Your task to perform on an android device: uninstall "DuckDuckGo Privacy Browser" Image 0: 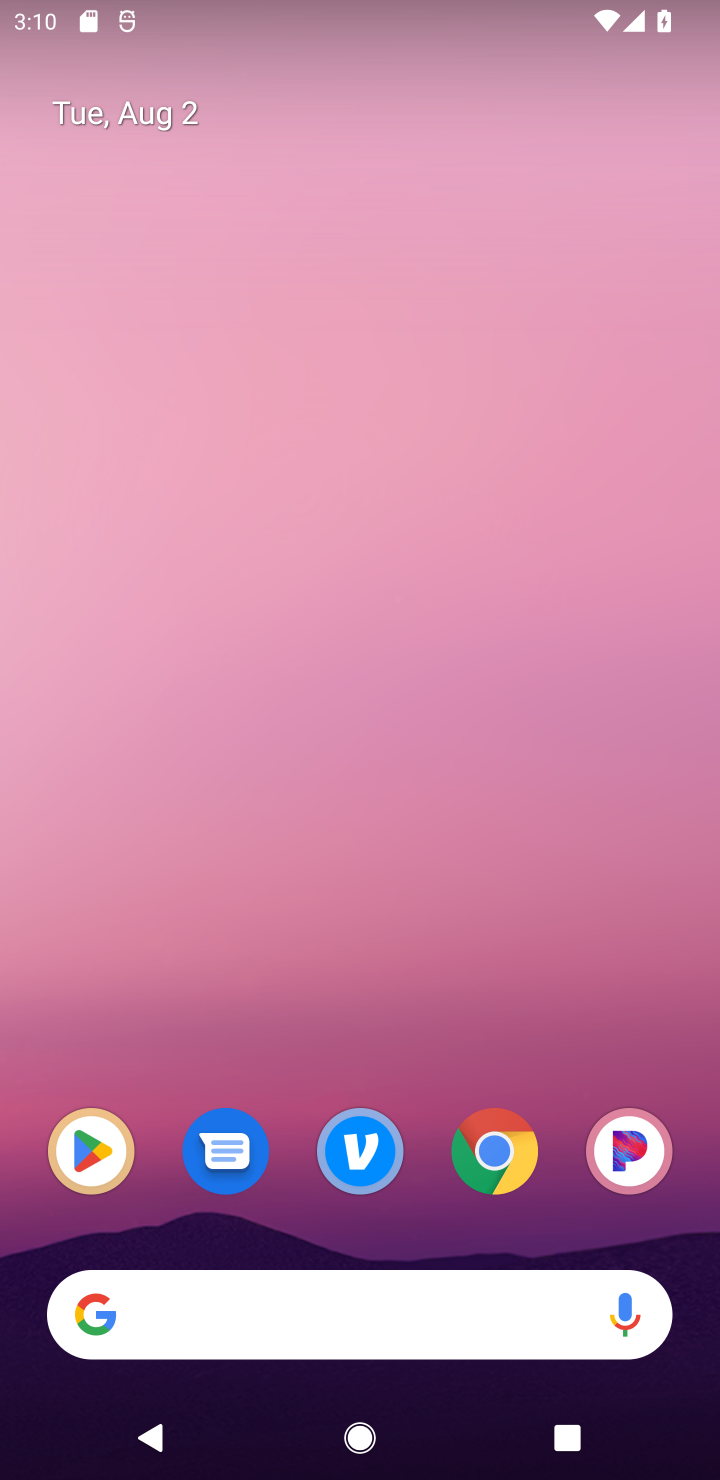
Step 0: drag from (416, 988) to (477, 449)
Your task to perform on an android device: uninstall "DuckDuckGo Privacy Browser" Image 1: 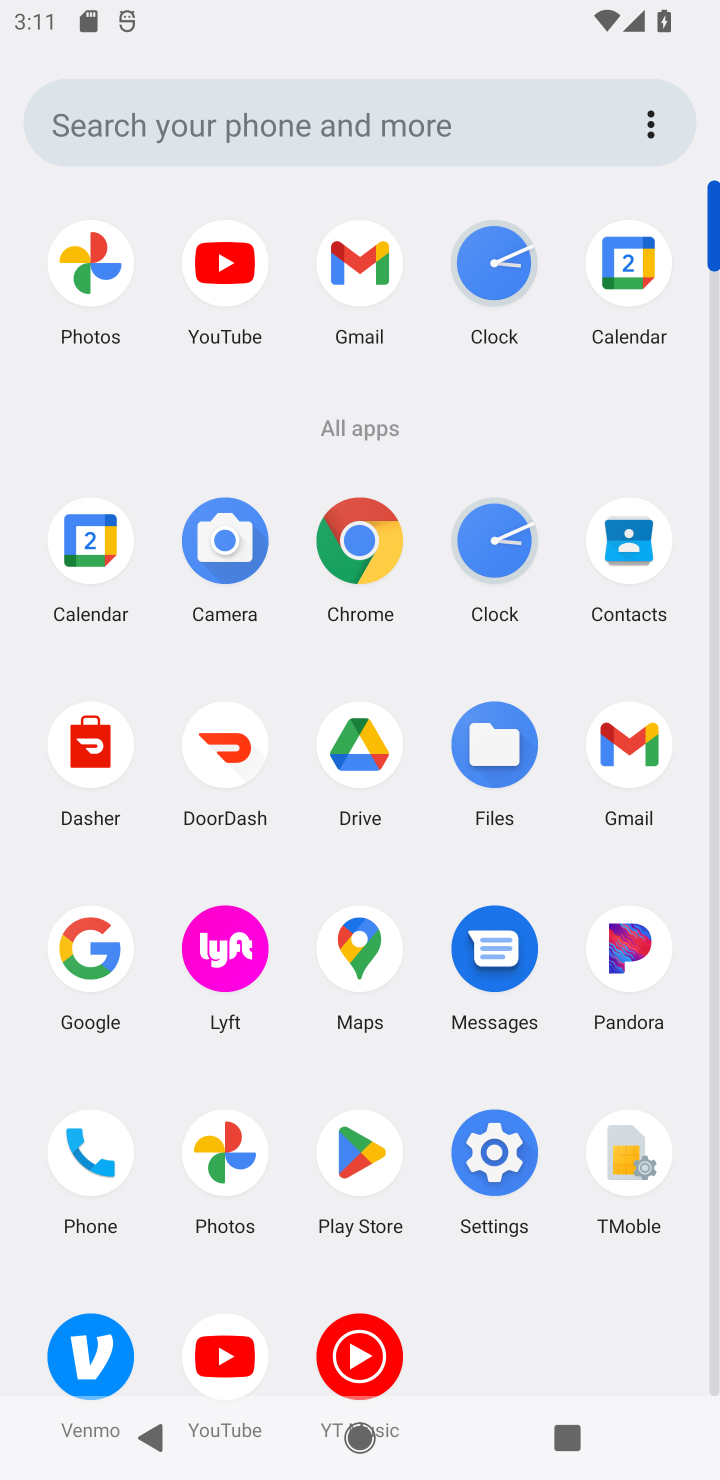
Step 1: click (390, 1163)
Your task to perform on an android device: uninstall "DuckDuckGo Privacy Browser" Image 2: 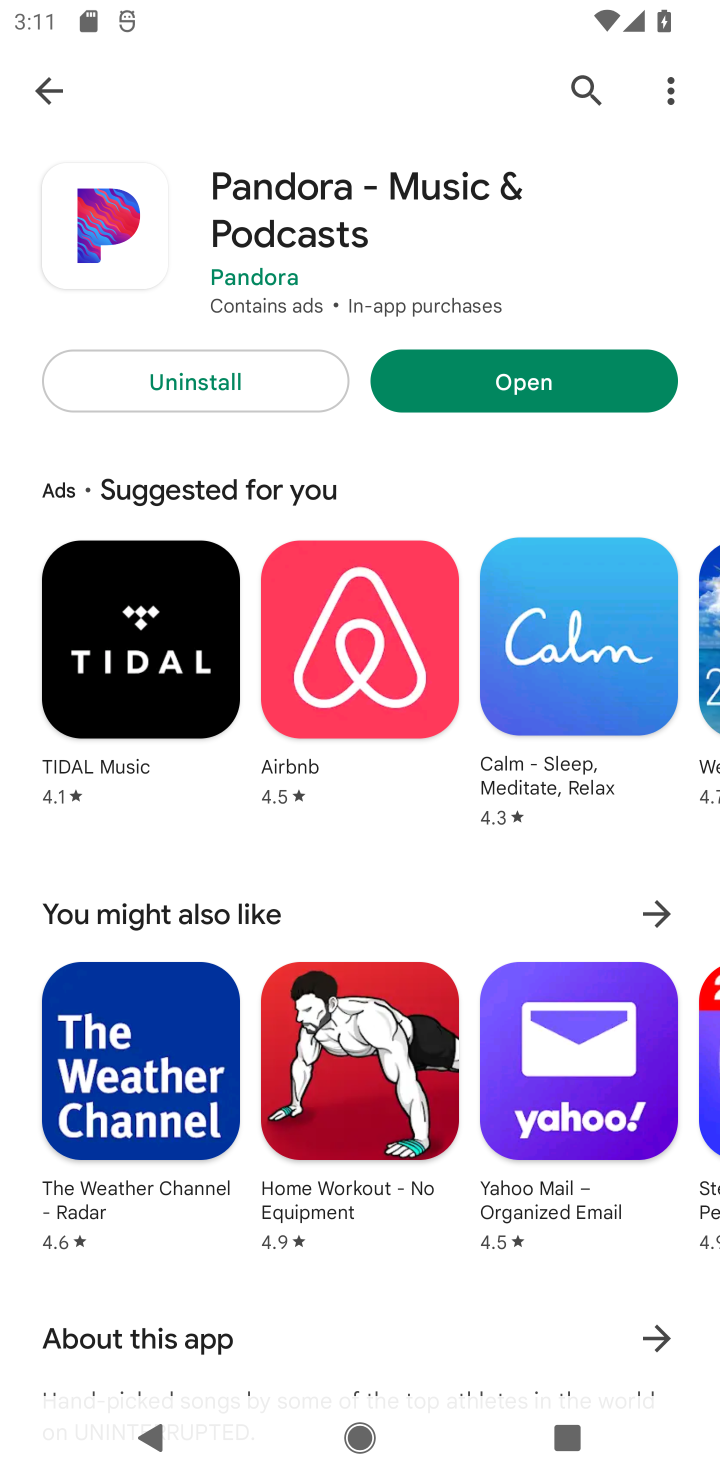
Step 2: click (50, 99)
Your task to perform on an android device: uninstall "DuckDuckGo Privacy Browser" Image 3: 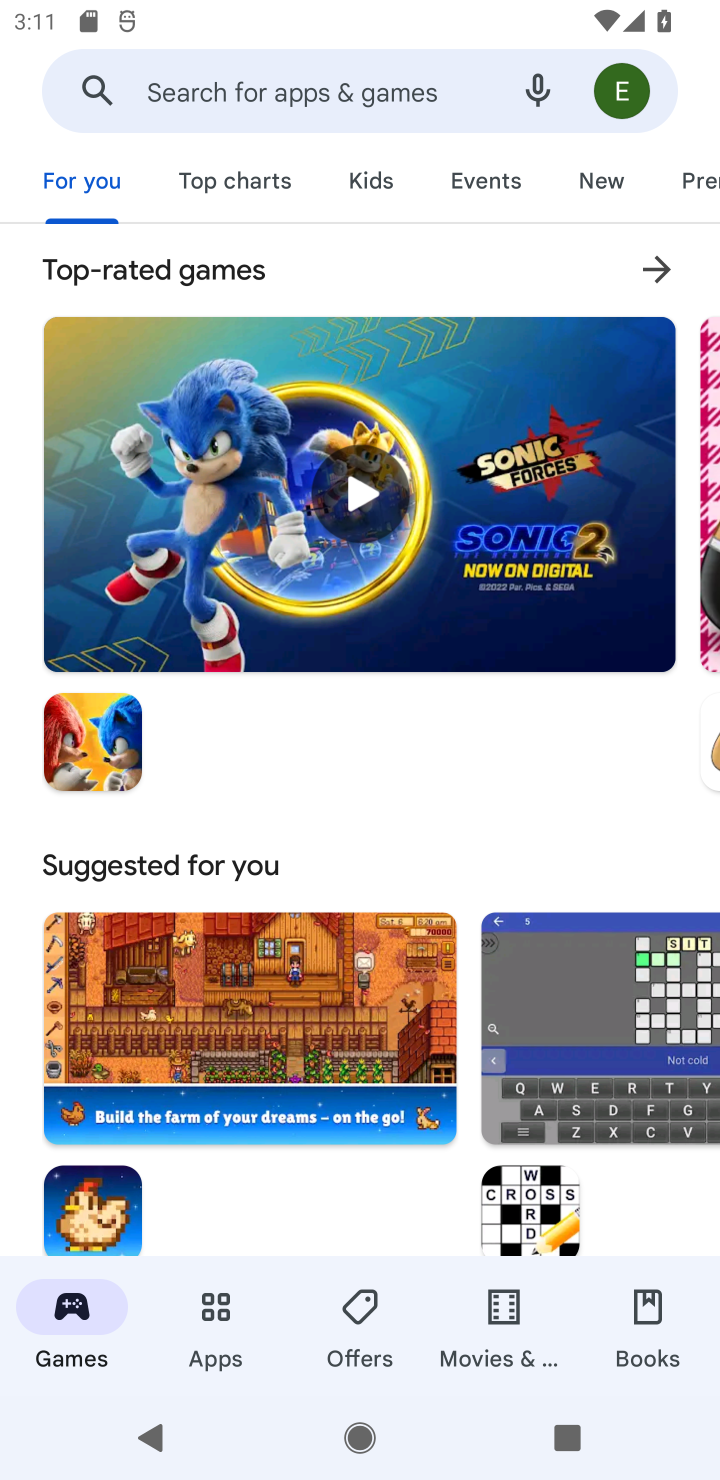
Step 3: click (264, 100)
Your task to perform on an android device: uninstall "DuckDuckGo Privacy Browser" Image 4: 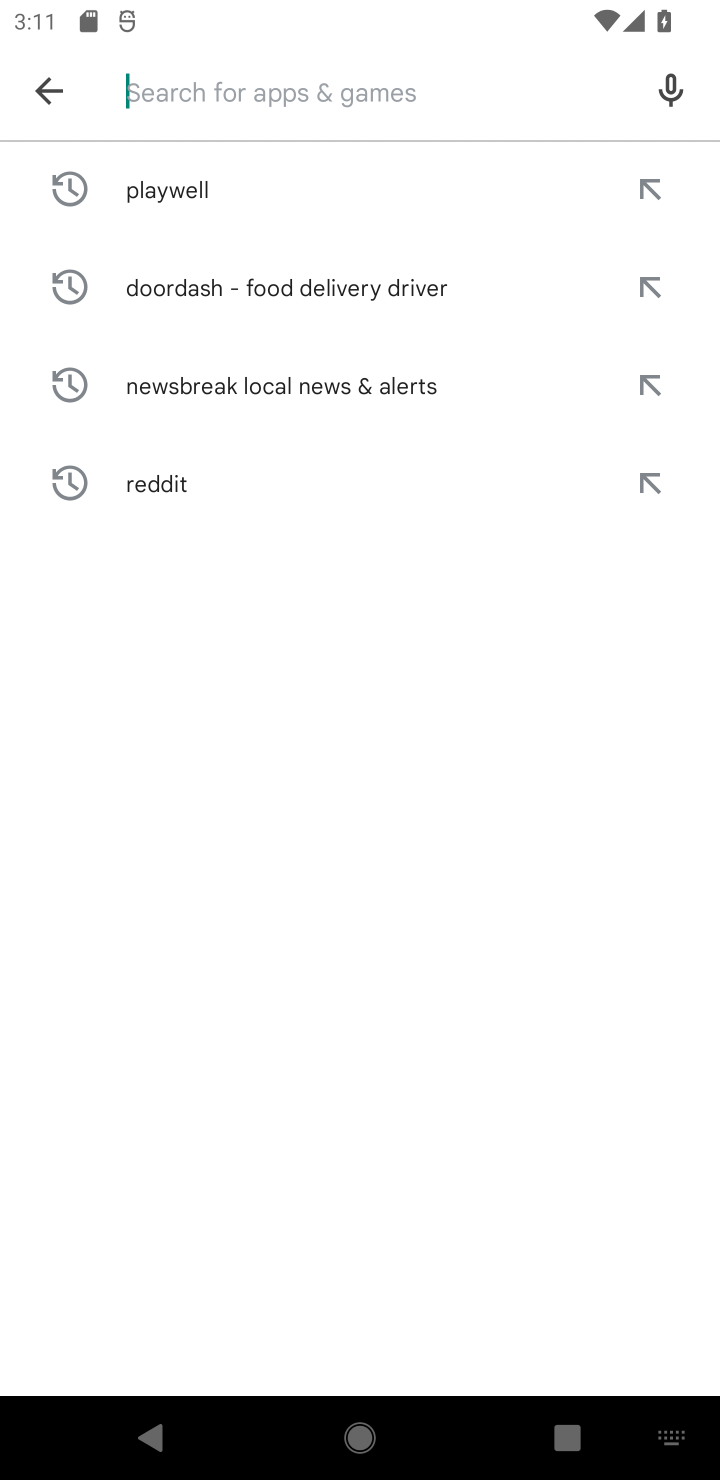
Step 4: type "DuckDuckGo Privacy Browser"
Your task to perform on an android device: uninstall "DuckDuckGo Privacy Browser" Image 5: 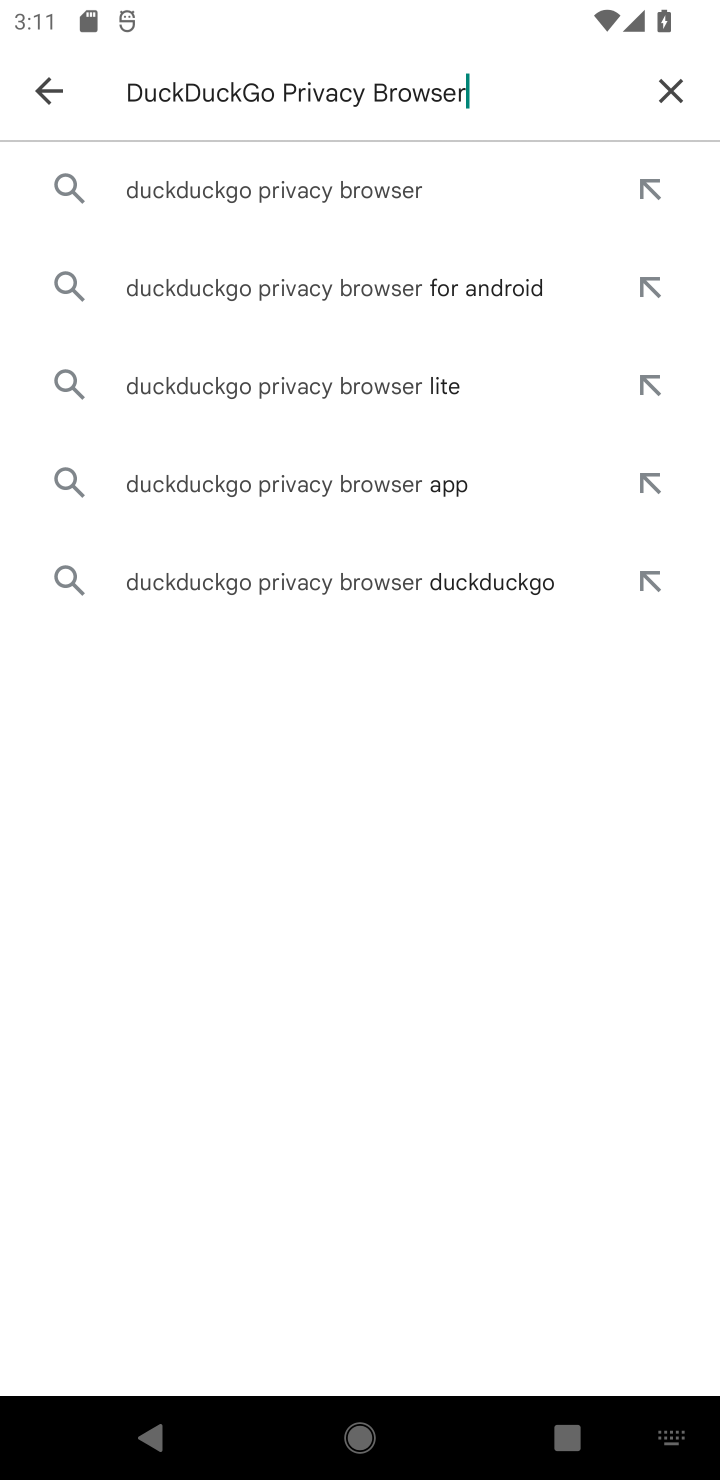
Step 5: click (338, 190)
Your task to perform on an android device: uninstall "DuckDuckGo Privacy Browser" Image 6: 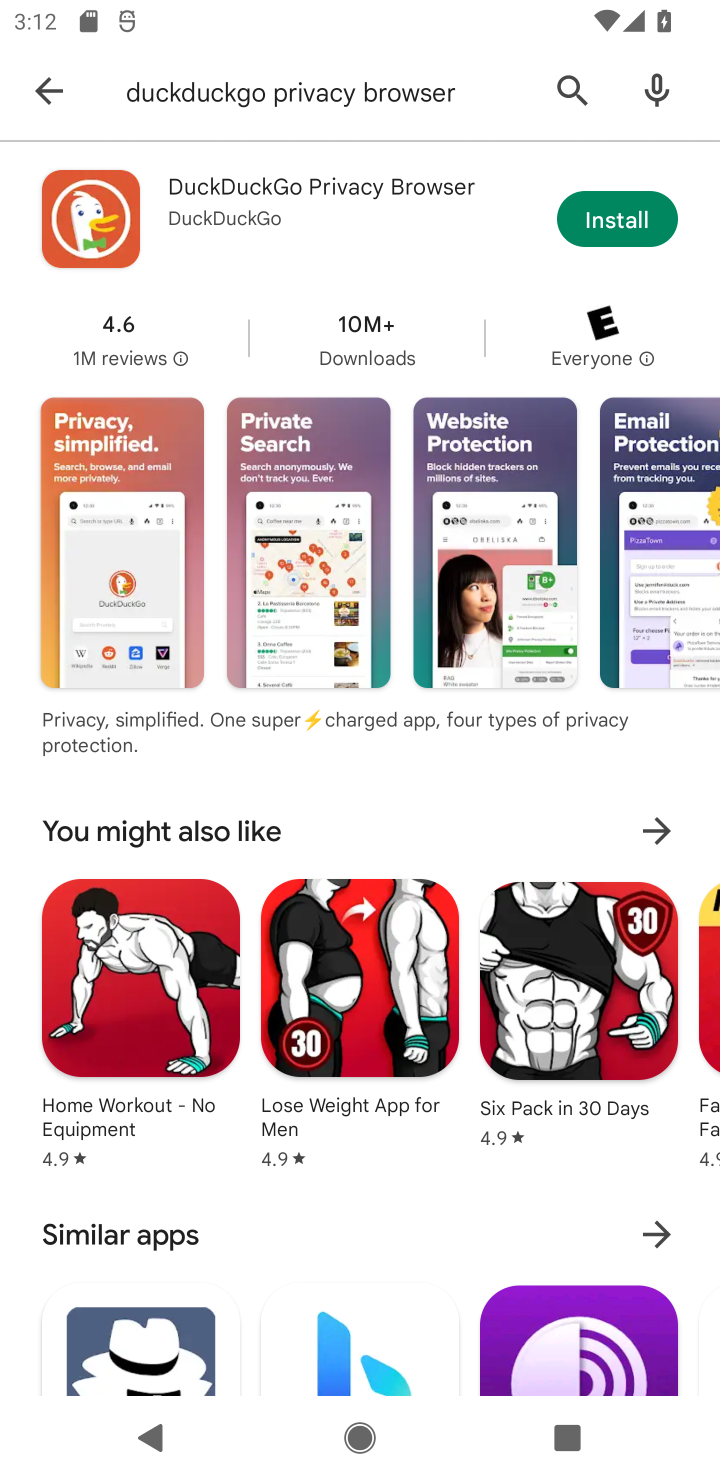
Step 6: task complete